Your task to perform on an android device: change the clock display to show seconds Image 0: 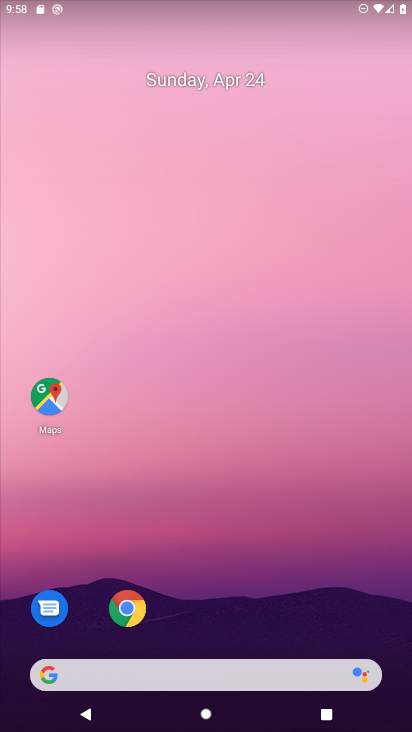
Step 0: drag from (271, 698) to (241, 73)
Your task to perform on an android device: change the clock display to show seconds Image 1: 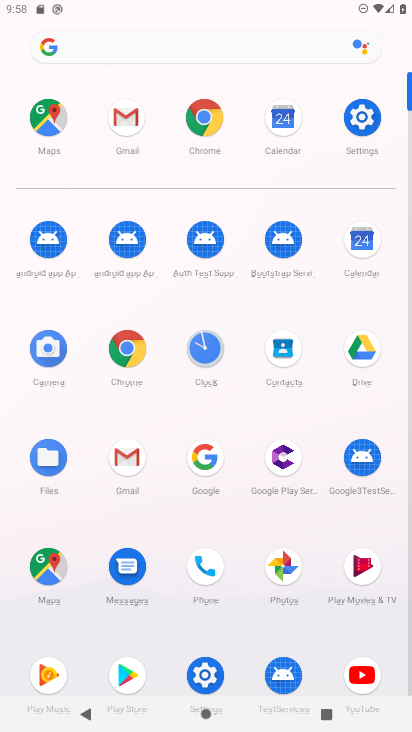
Step 1: click (207, 340)
Your task to perform on an android device: change the clock display to show seconds Image 2: 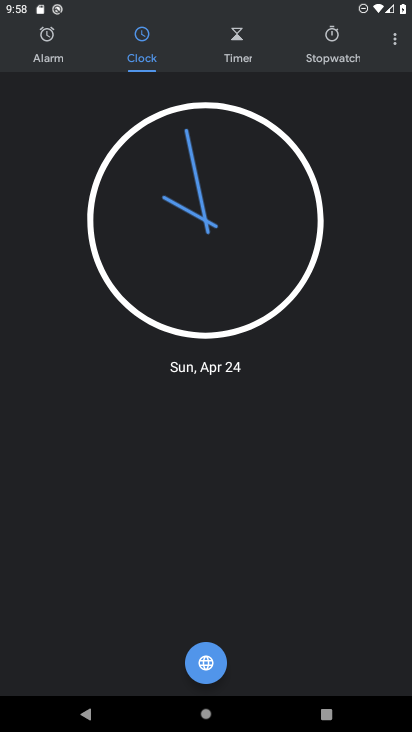
Step 2: click (395, 40)
Your task to perform on an android device: change the clock display to show seconds Image 3: 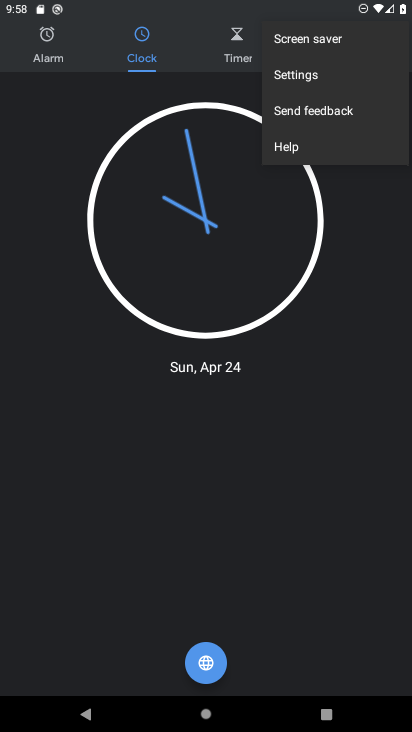
Step 3: click (327, 83)
Your task to perform on an android device: change the clock display to show seconds Image 4: 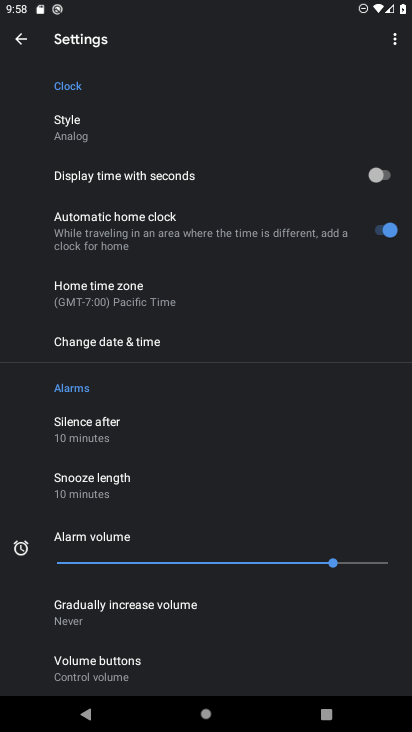
Step 4: click (209, 220)
Your task to perform on an android device: change the clock display to show seconds Image 5: 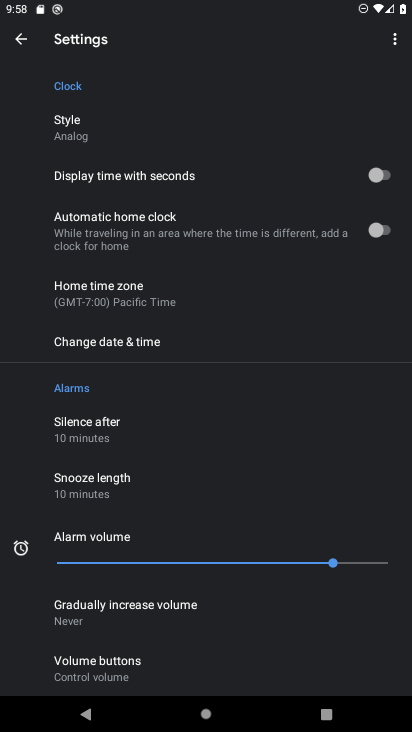
Step 5: task complete